Your task to perform on an android device: Open Youtube and go to the subscriptions tab Image 0: 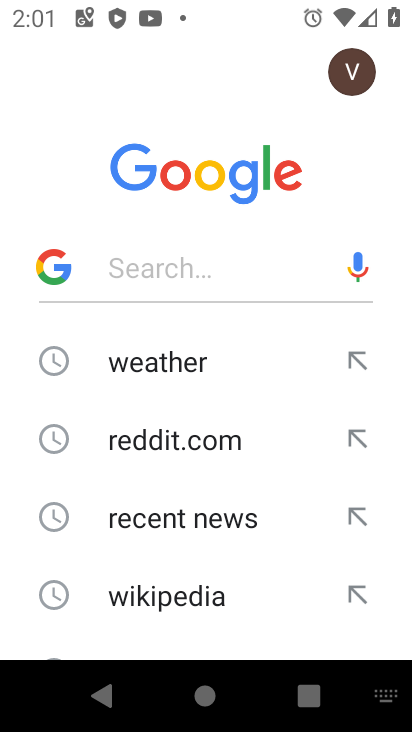
Step 0: press back button
Your task to perform on an android device: Open Youtube and go to the subscriptions tab Image 1: 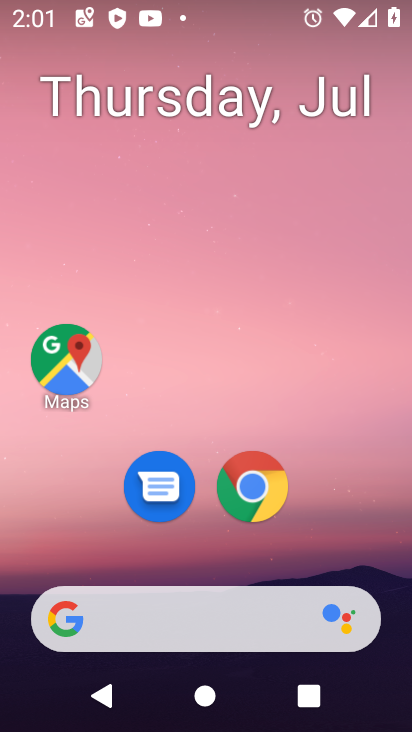
Step 1: drag from (202, 569) to (314, 2)
Your task to perform on an android device: Open Youtube and go to the subscriptions tab Image 2: 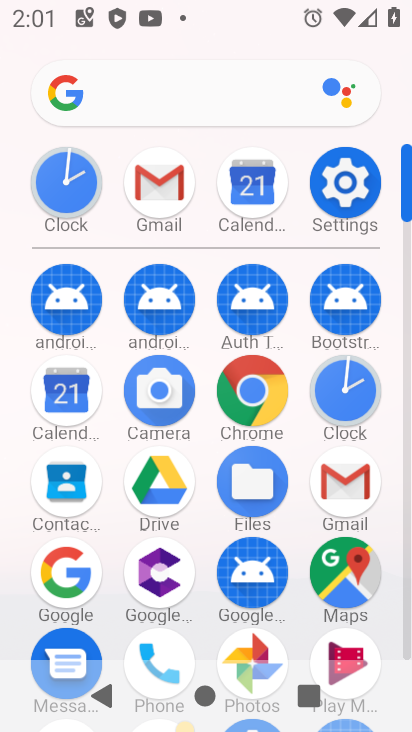
Step 2: drag from (239, 581) to (335, 42)
Your task to perform on an android device: Open Youtube and go to the subscriptions tab Image 3: 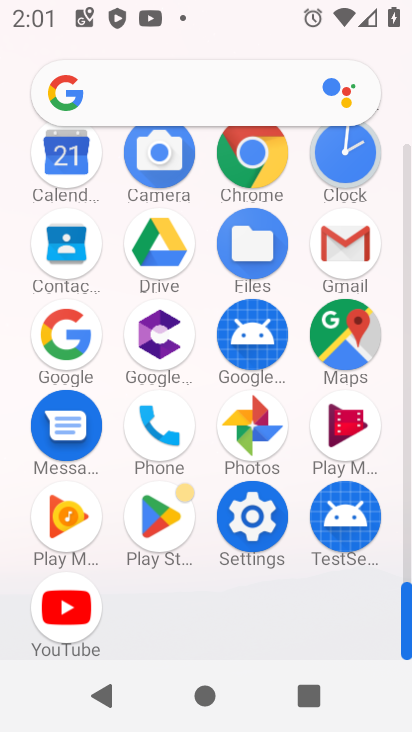
Step 3: click (58, 610)
Your task to perform on an android device: Open Youtube and go to the subscriptions tab Image 4: 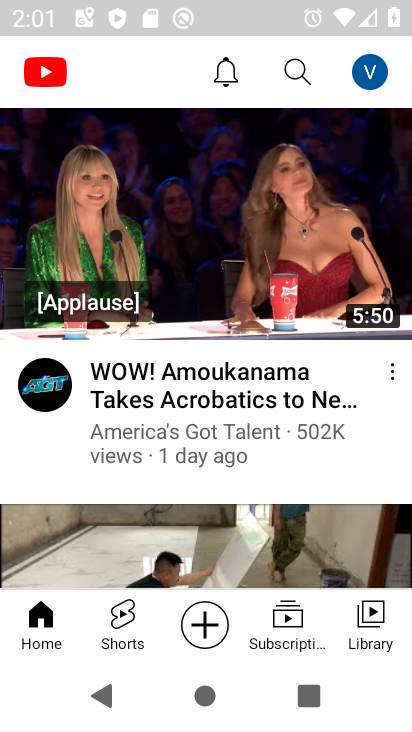
Step 4: click (274, 635)
Your task to perform on an android device: Open Youtube and go to the subscriptions tab Image 5: 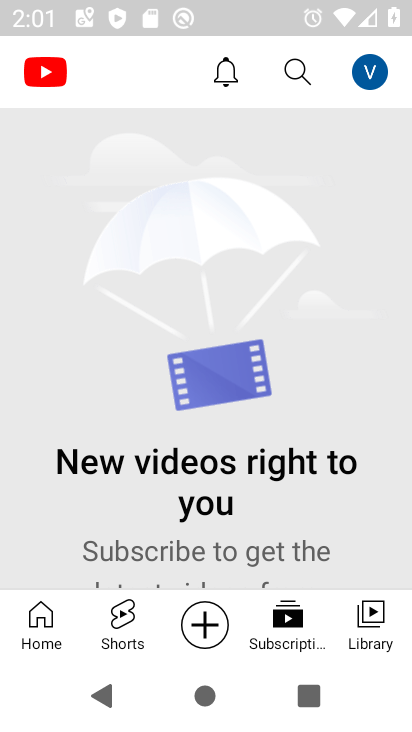
Step 5: task complete